Your task to perform on an android device: Do I have any events tomorrow? Image 0: 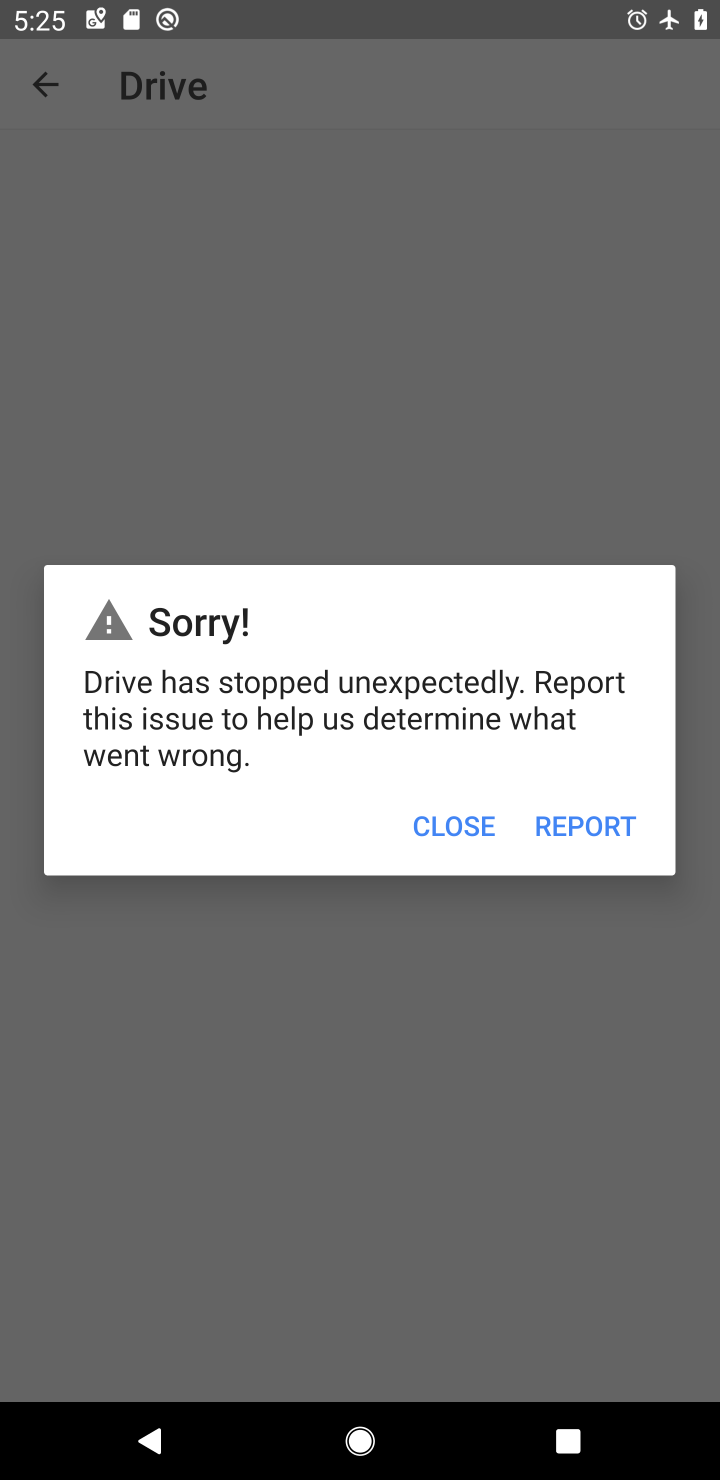
Step 0: press home button
Your task to perform on an android device: Do I have any events tomorrow? Image 1: 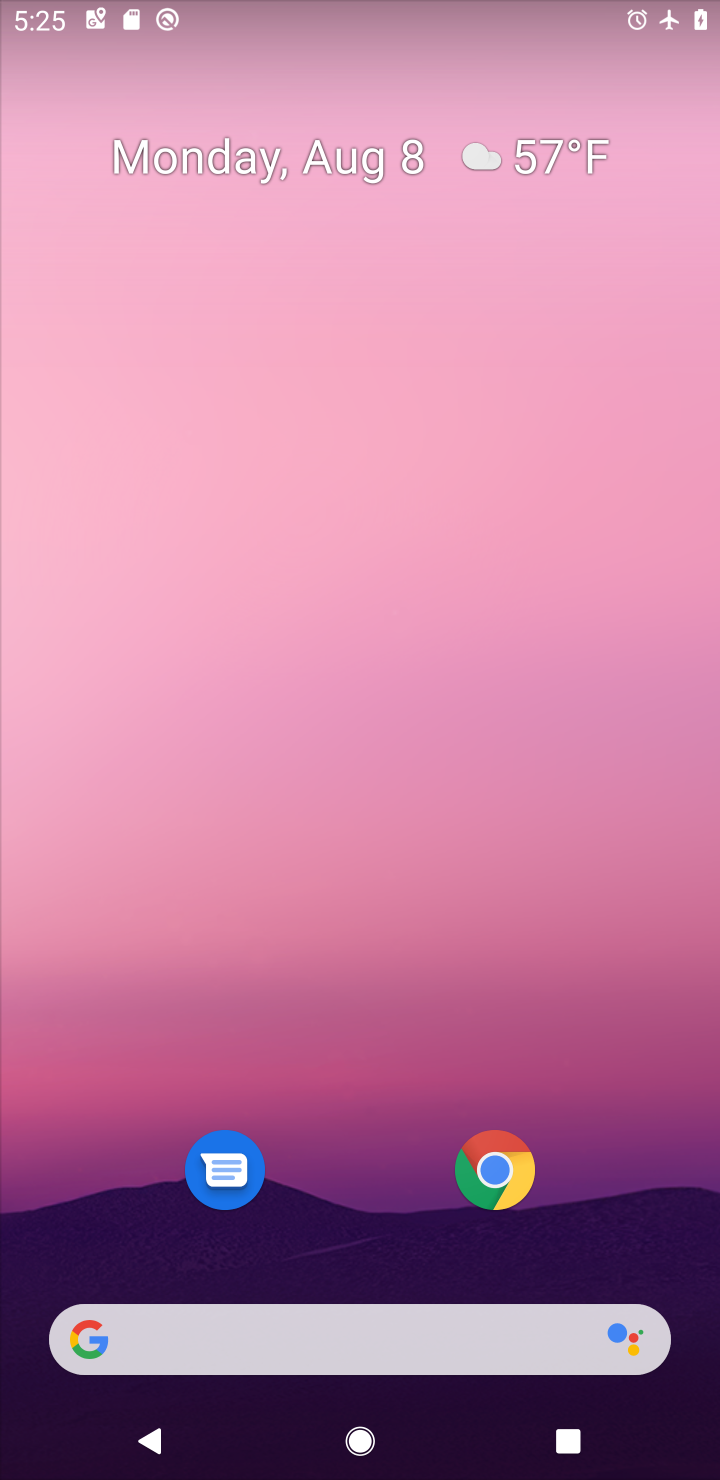
Step 1: drag from (359, 1214) to (307, 303)
Your task to perform on an android device: Do I have any events tomorrow? Image 2: 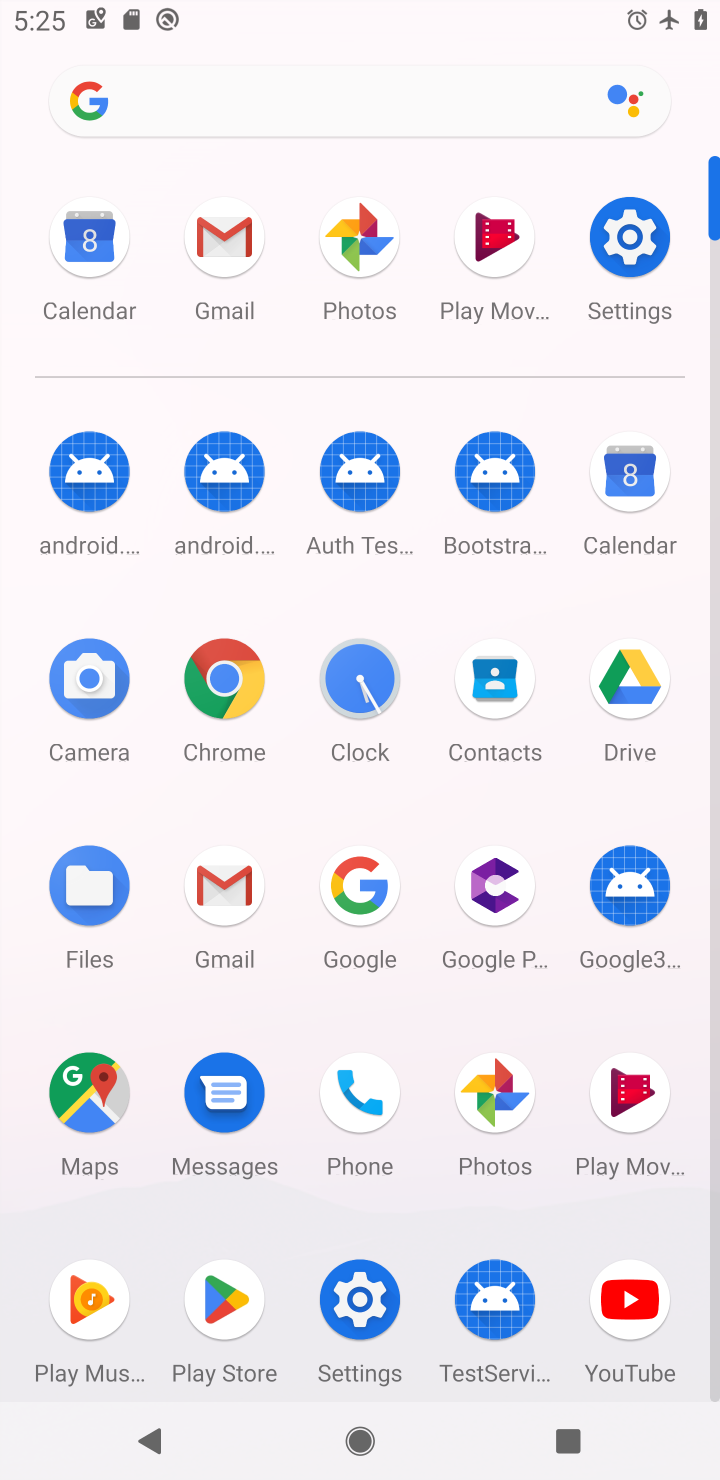
Step 2: click (621, 484)
Your task to perform on an android device: Do I have any events tomorrow? Image 3: 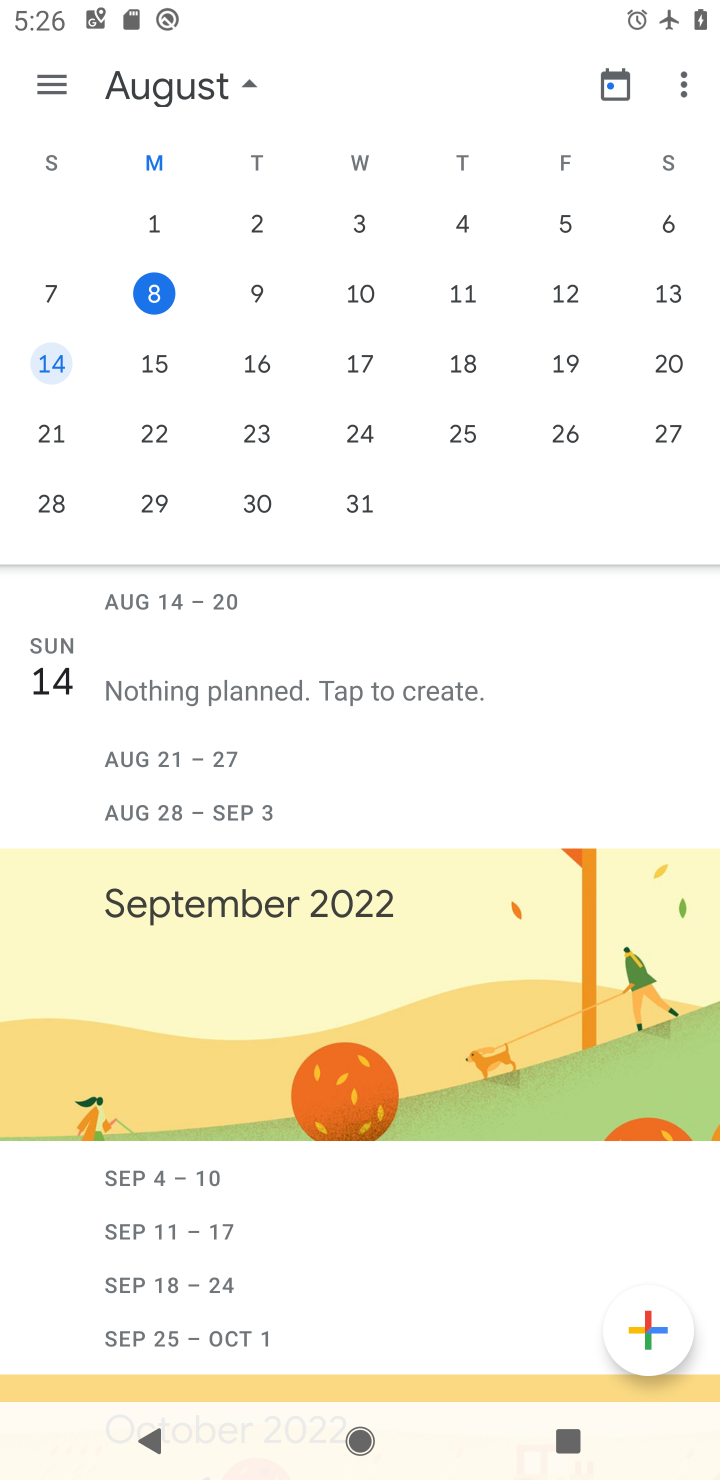
Step 3: click (264, 305)
Your task to perform on an android device: Do I have any events tomorrow? Image 4: 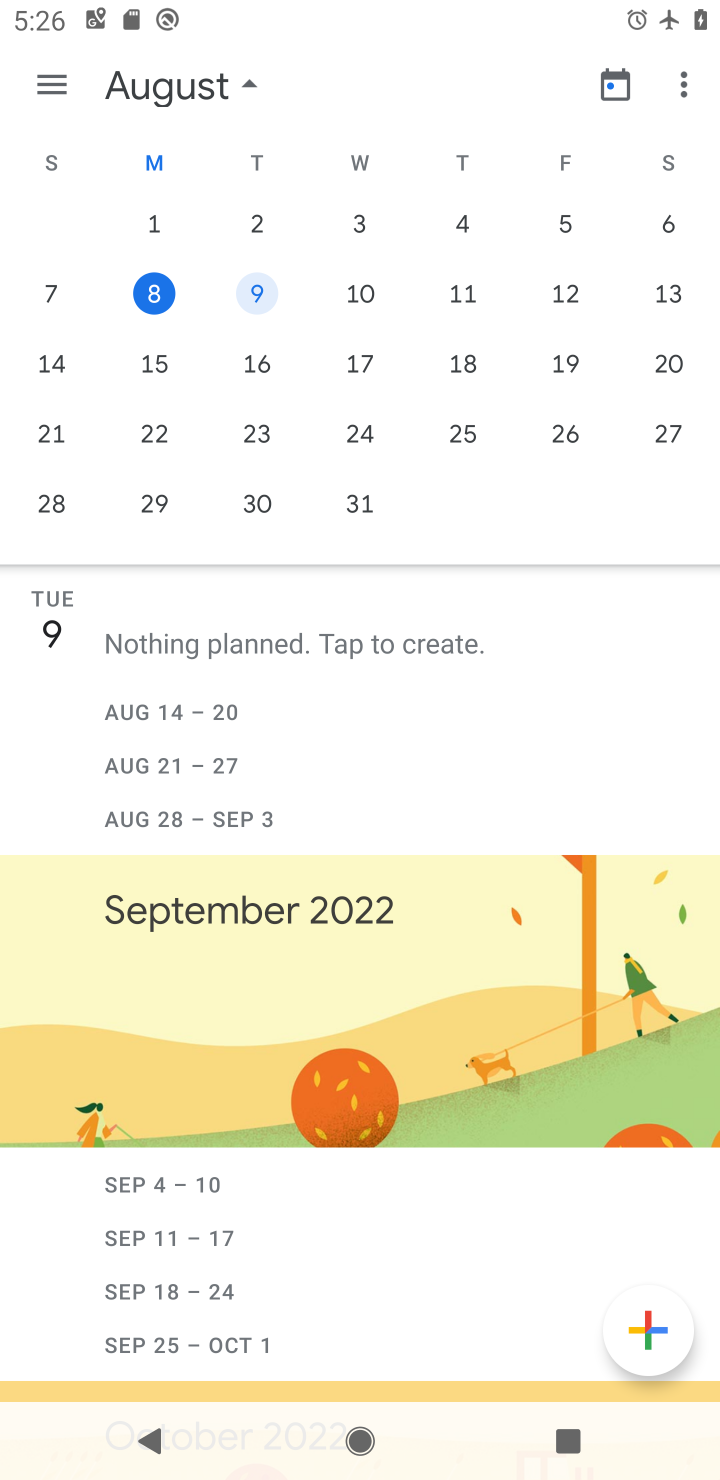
Step 4: task complete